Your task to perform on an android device: Open the phone app and click the voicemail tab. Image 0: 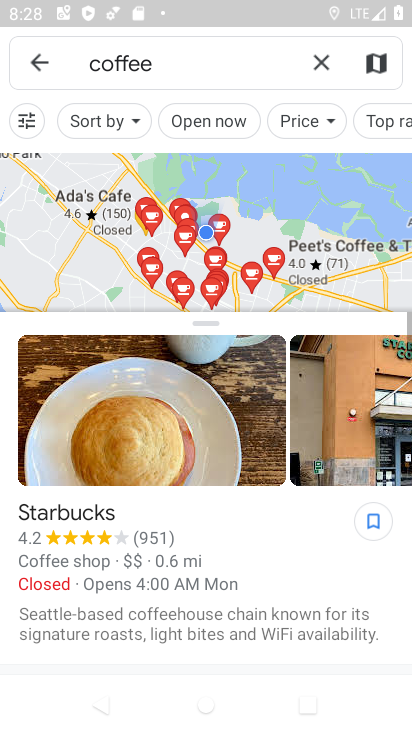
Step 0: press home button
Your task to perform on an android device: Open the phone app and click the voicemail tab. Image 1: 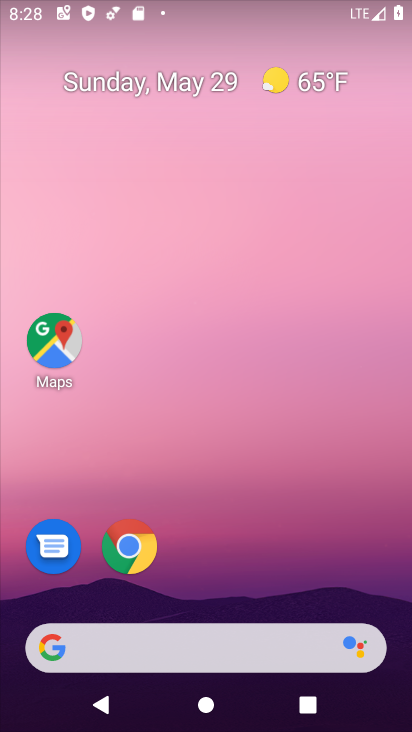
Step 1: drag from (163, 629) to (226, 143)
Your task to perform on an android device: Open the phone app and click the voicemail tab. Image 2: 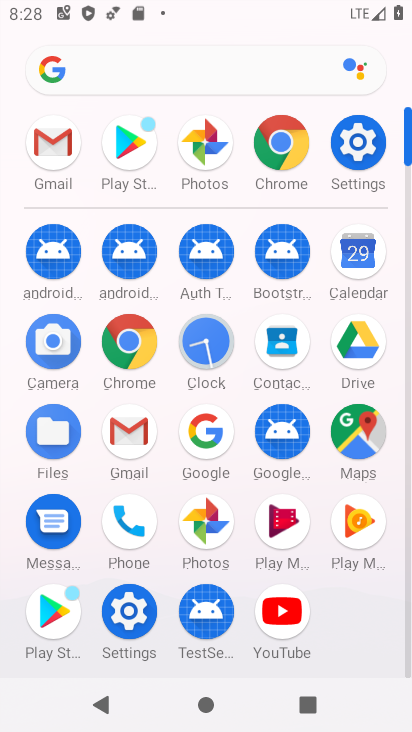
Step 2: click (122, 538)
Your task to perform on an android device: Open the phone app and click the voicemail tab. Image 3: 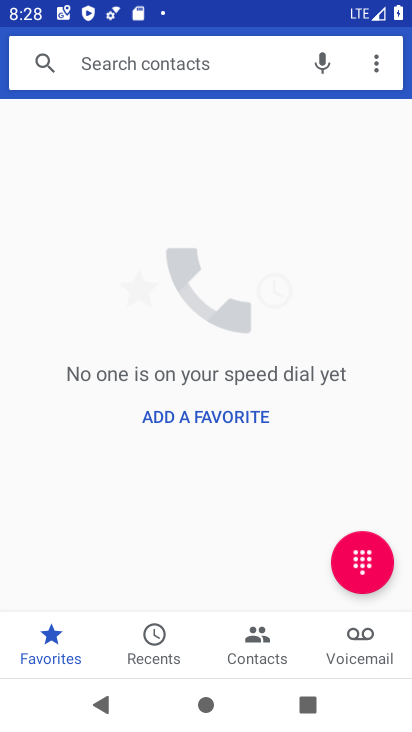
Step 3: click (353, 644)
Your task to perform on an android device: Open the phone app and click the voicemail tab. Image 4: 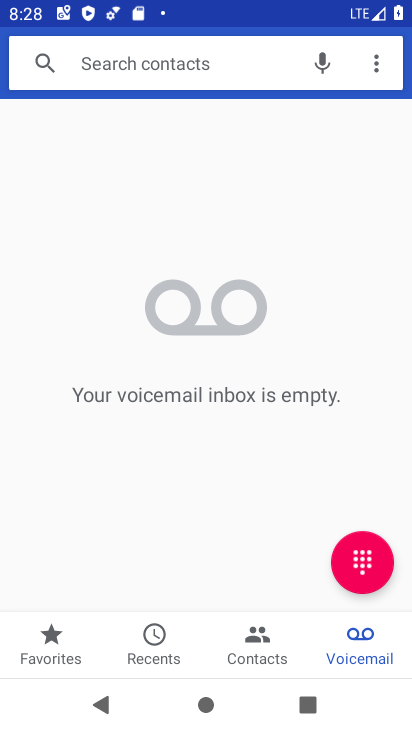
Step 4: task complete